Your task to perform on an android device: Open CNN.com Image 0: 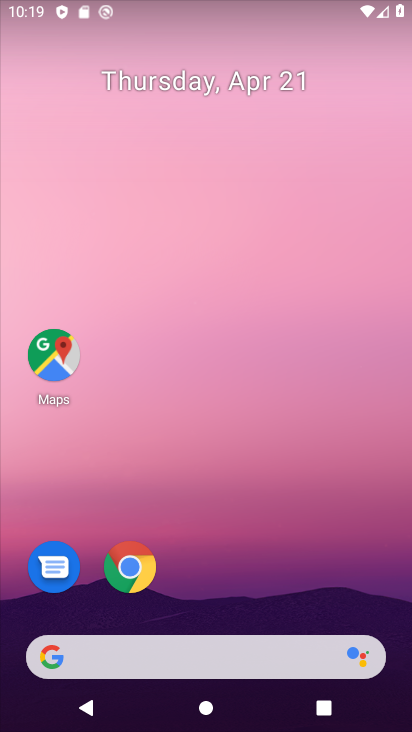
Step 0: click (129, 567)
Your task to perform on an android device: Open CNN.com Image 1: 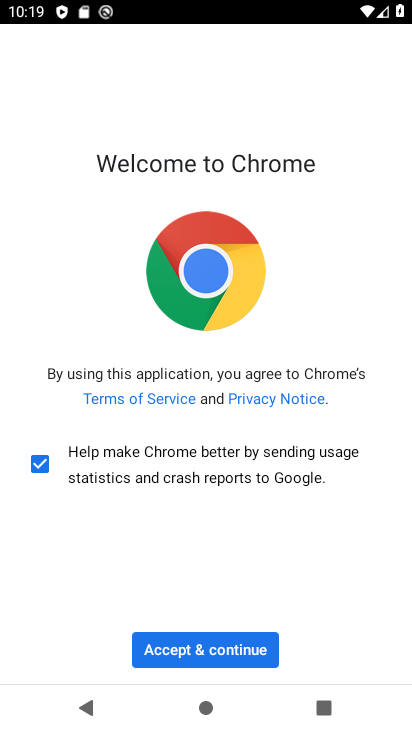
Step 1: click (210, 652)
Your task to perform on an android device: Open CNN.com Image 2: 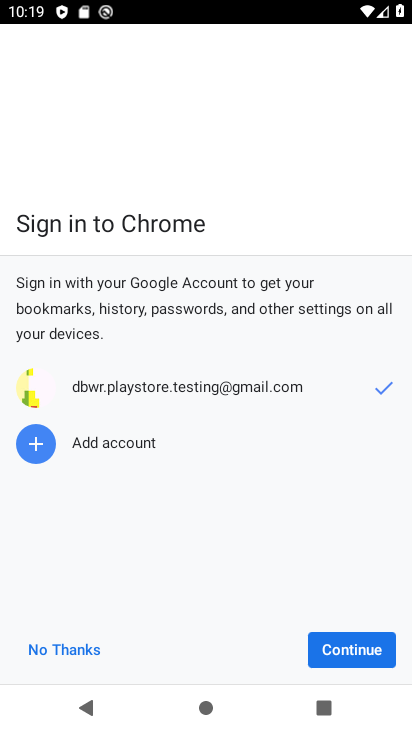
Step 2: click (344, 649)
Your task to perform on an android device: Open CNN.com Image 3: 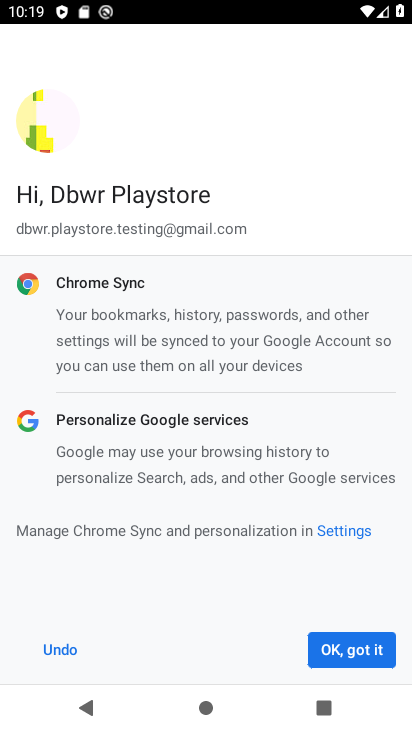
Step 3: click (344, 649)
Your task to perform on an android device: Open CNN.com Image 4: 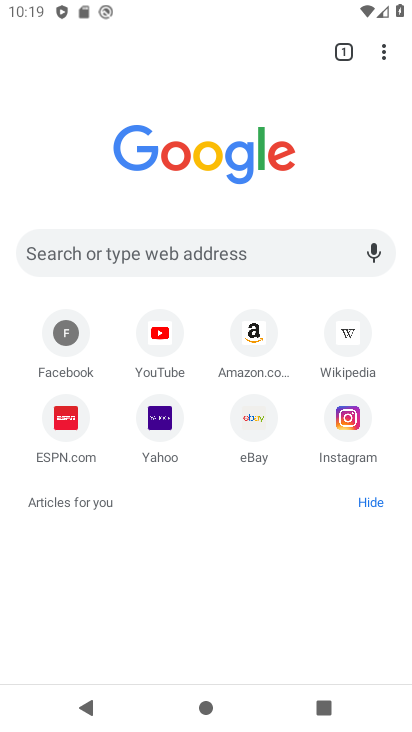
Step 4: click (134, 250)
Your task to perform on an android device: Open CNN.com Image 5: 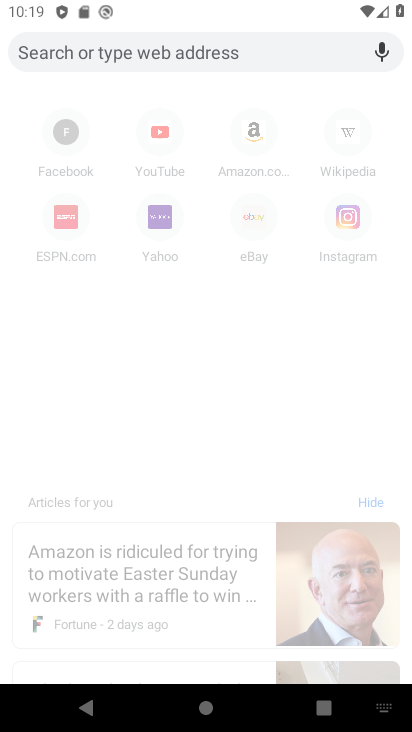
Step 5: type "CNN.com"
Your task to perform on an android device: Open CNN.com Image 6: 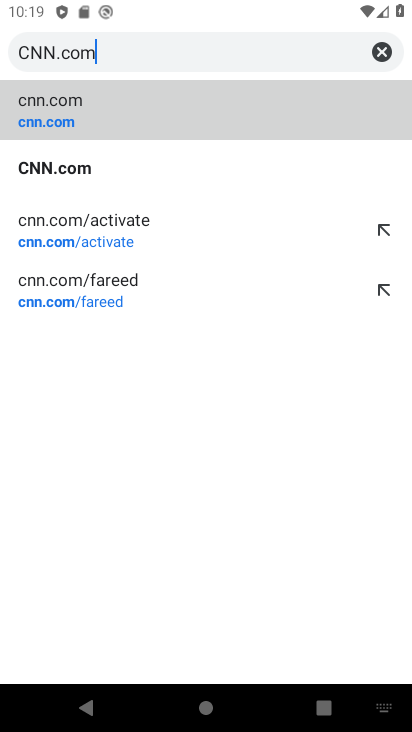
Step 6: click (83, 171)
Your task to perform on an android device: Open CNN.com Image 7: 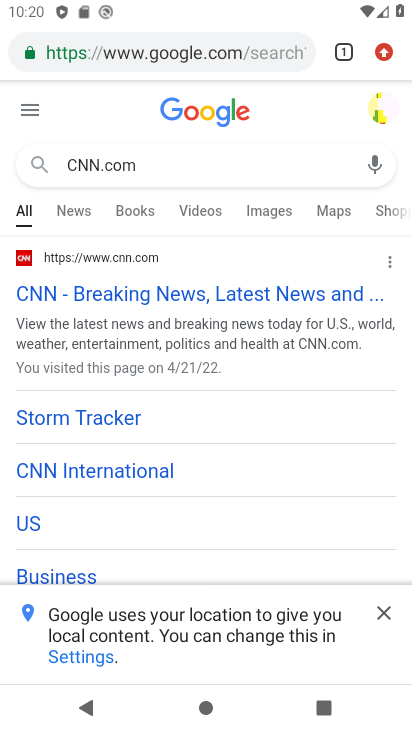
Step 7: click (379, 608)
Your task to perform on an android device: Open CNN.com Image 8: 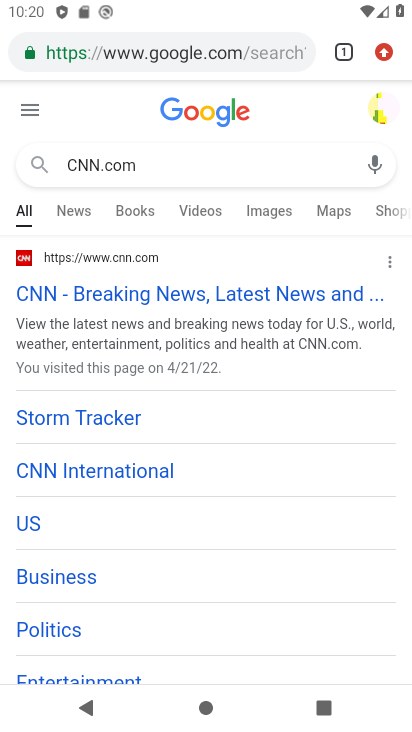
Step 8: task complete